Your task to perform on an android device: add a contact Image 0: 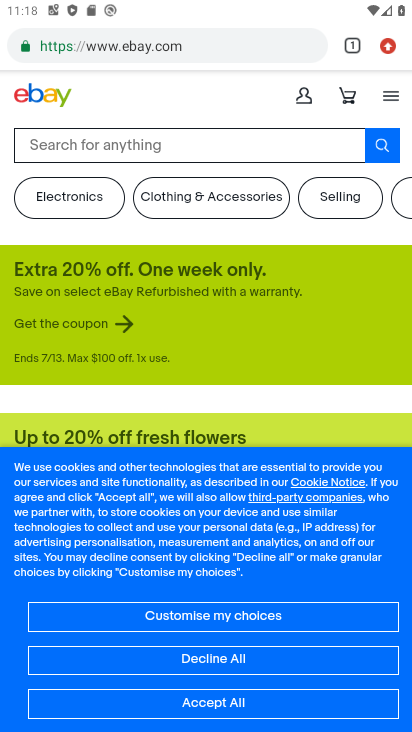
Step 0: press home button
Your task to perform on an android device: add a contact Image 1: 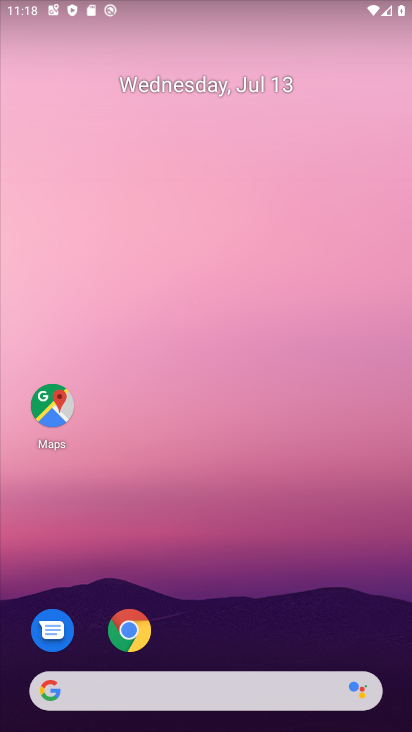
Step 1: drag from (352, 619) to (378, 232)
Your task to perform on an android device: add a contact Image 2: 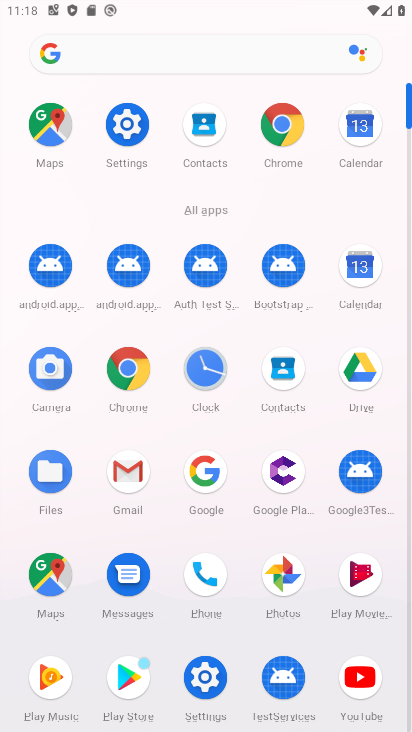
Step 2: click (284, 369)
Your task to perform on an android device: add a contact Image 3: 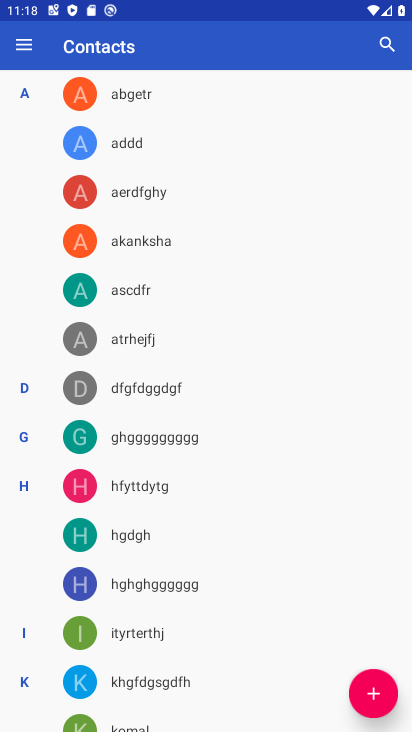
Step 3: click (371, 702)
Your task to perform on an android device: add a contact Image 4: 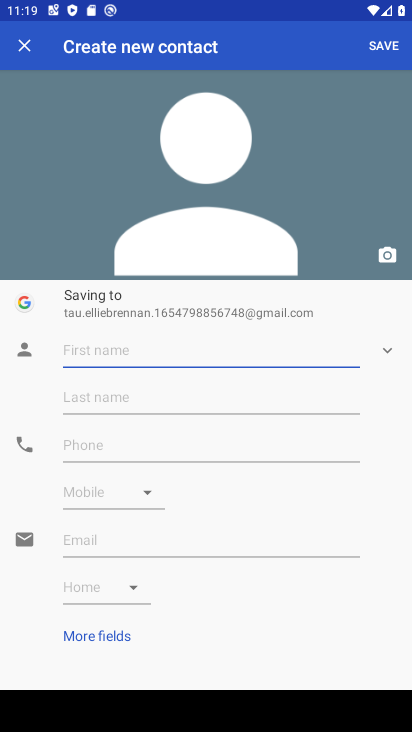
Step 4: type "lol"
Your task to perform on an android device: add a contact Image 5: 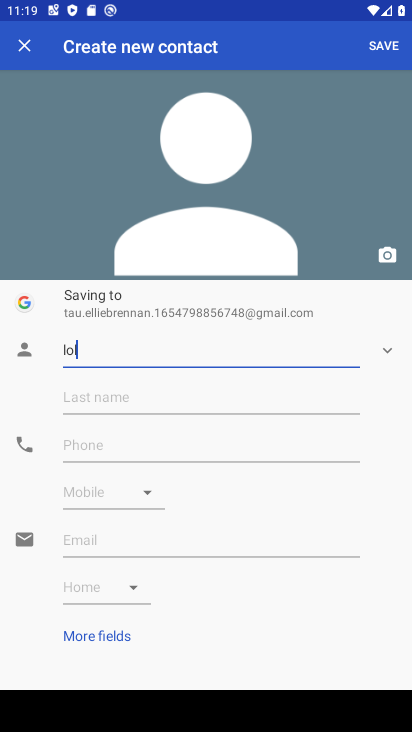
Step 5: click (221, 448)
Your task to perform on an android device: add a contact Image 6: 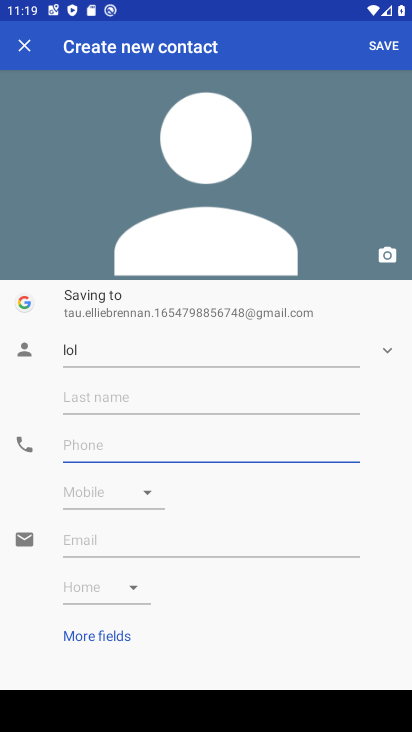
Step 6: type "1234567890"
Your task to perform on an android device: add a contact Image 7: 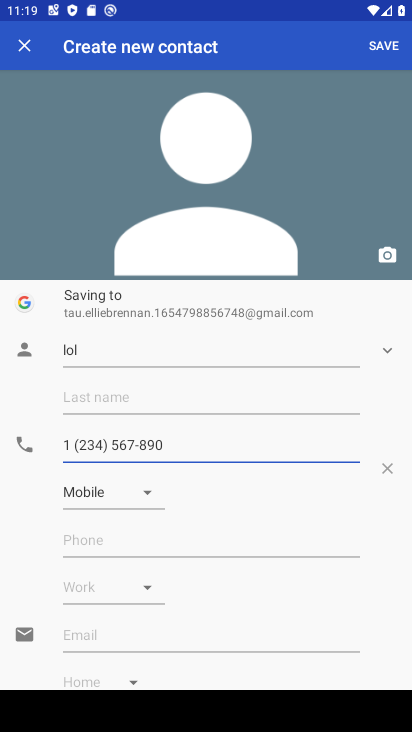
Step 7: click (384, 46)
Your task to perform on an android device: add a contact Image 8: 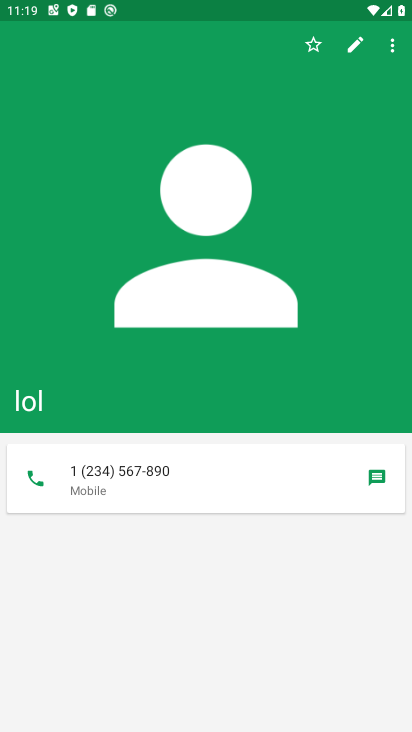
Step 8: task complete